Your task to perform on an android device: Open calendar and show me the first week of next month Image 0: 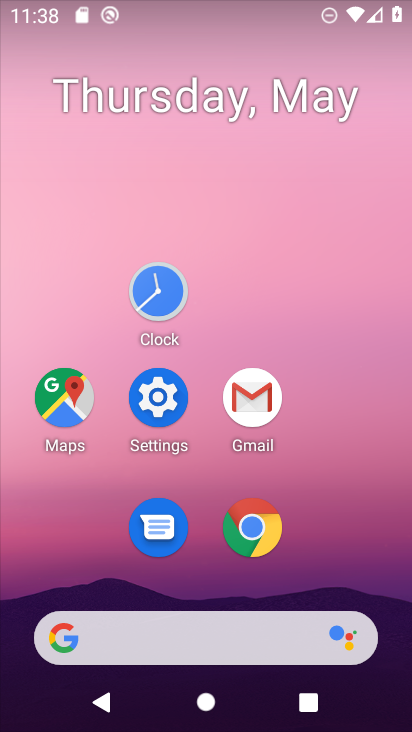
Step 0: drag from (364, 577) to (360, 220)
Your task to perform on an android device: Open calendar and show me the first week of next month Image 1: 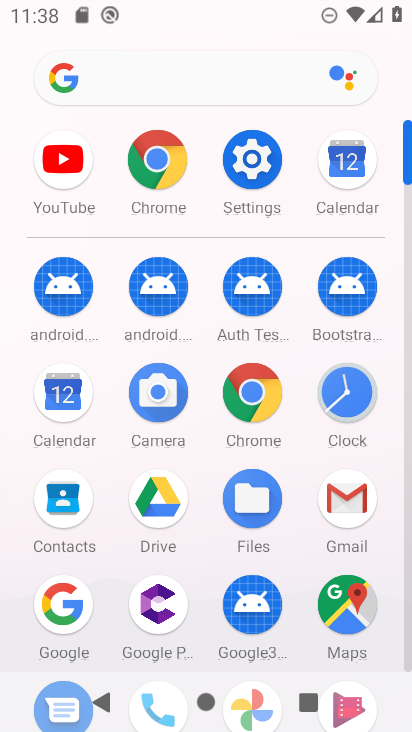
Step 1: click (279, 194)
Your task to perform on an android device: Open calendar and show me the first week of next month Image 2: 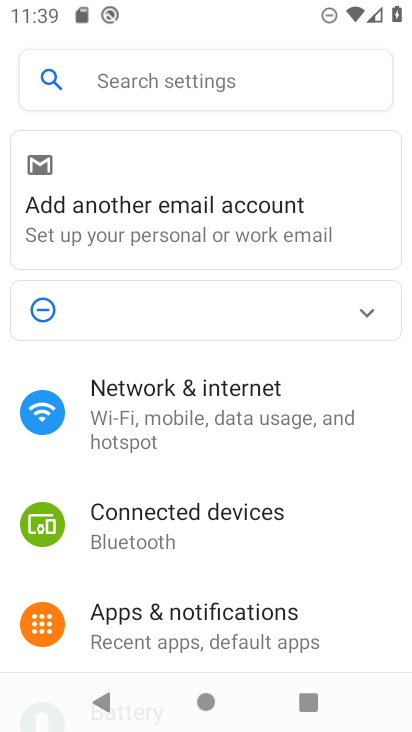
Step 2: press home button
Your task to perform on an android device: Open calendar and show me the first week of next month Image 3: 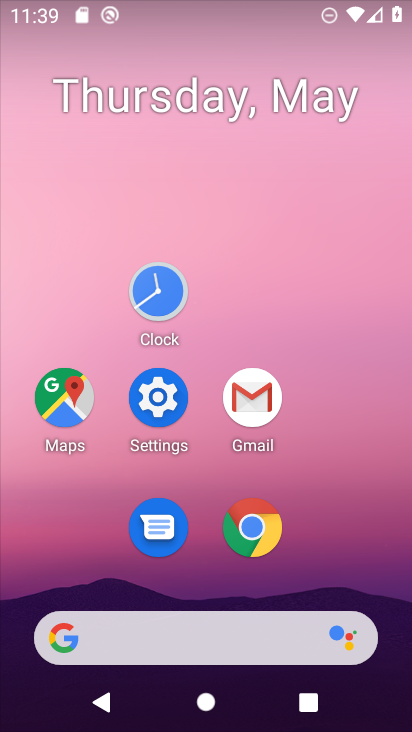
Step 3: drag from (332, 533) to (358, 175)
Your task to perform on an android device: Open calendar and show me the first week of next month Image 4: 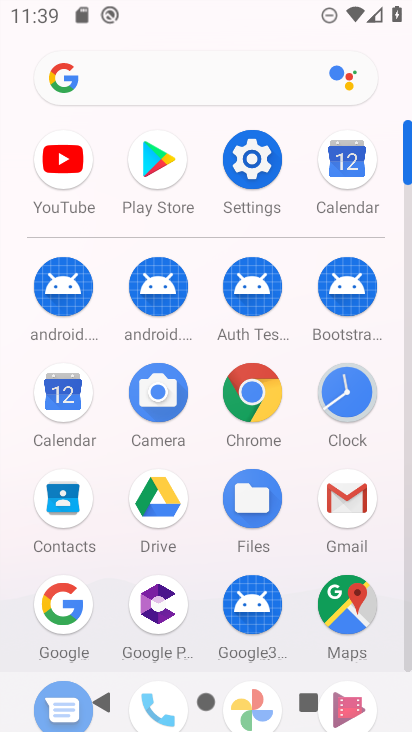
Step 4: click (66, 496)
Your task to perform on an android device: Open calendar and show me the first week of next month Image 5: 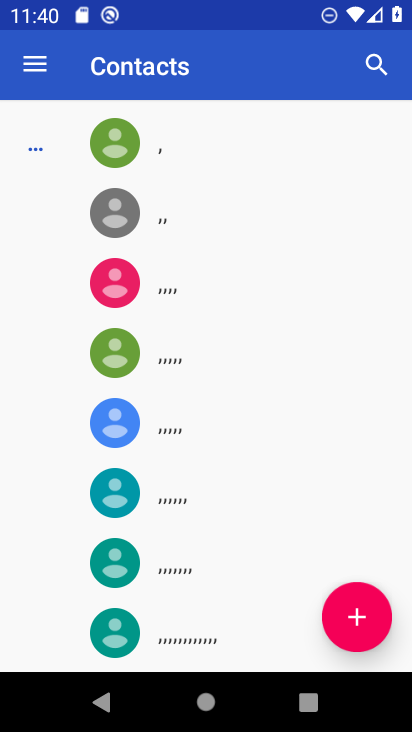
Step 5: press home button
Your task to perform on an android device: Open calendar and show me the first week of next month Image 6: 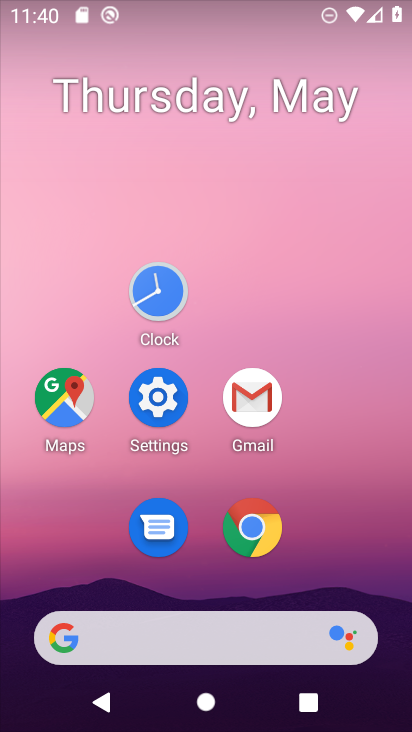
Step 6: drag from (332, 565) to (335, 200)
Your task to perform on an android device: Open calendar and show me the first week of next month Image 7: 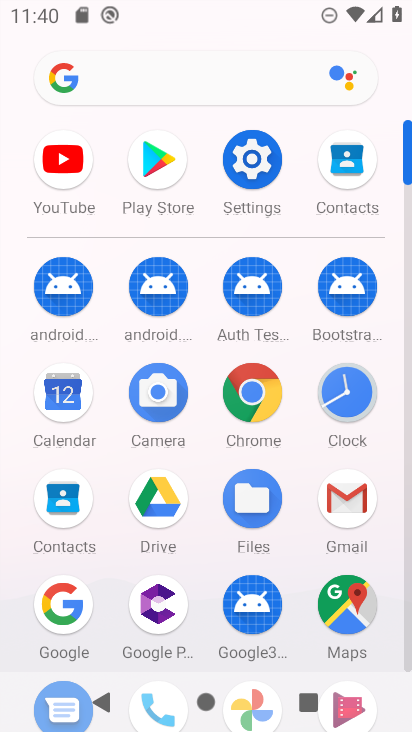
Step 7: drag from (314, 536) to (293, 249)
Your task to perform on an android device: Open calendar and show me the first week of next month Image 8: 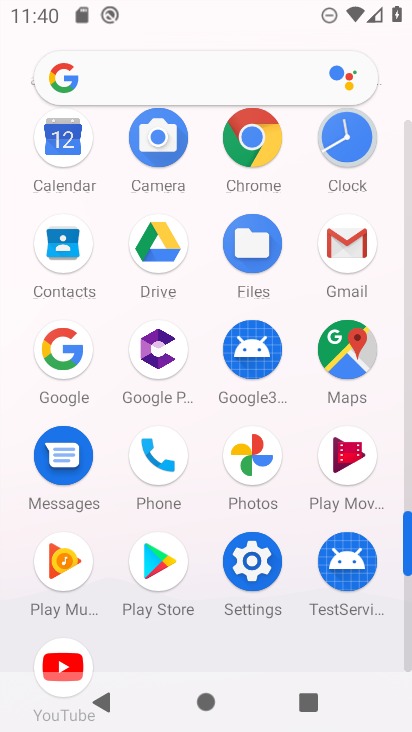
Step 8: drag from (53, 409) to (57, 279)
Your task to perform on an android device: Open calendar and show me the first week of next month Image 9: 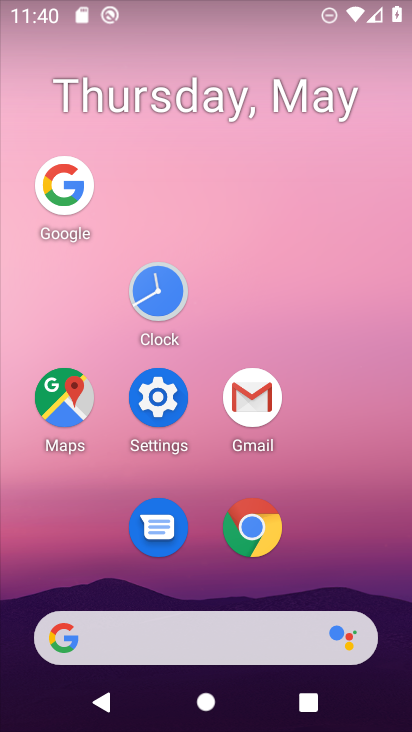
Step 9: drag from (316, 515) to (321, 241)
Your task to perform on an android device: Open calendar and show me the first week of next month Image 10: 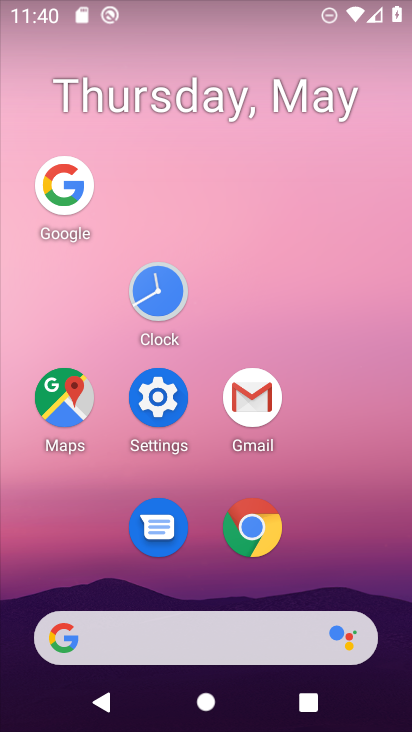
Step 10: drag from (361, 493) to (344, 129)
Your task to perform on an android device: Open calendar and show me the first week of next month Image 11: 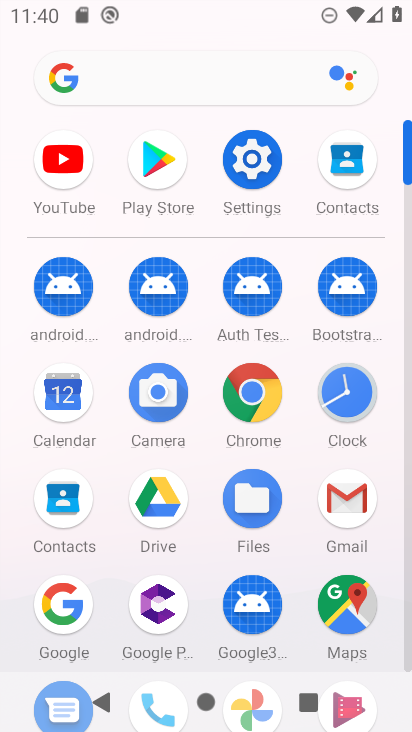
Step 11: click (81, 397)
Your task to perform on an android device: Open calendar and show me the first week of next month Image 12: 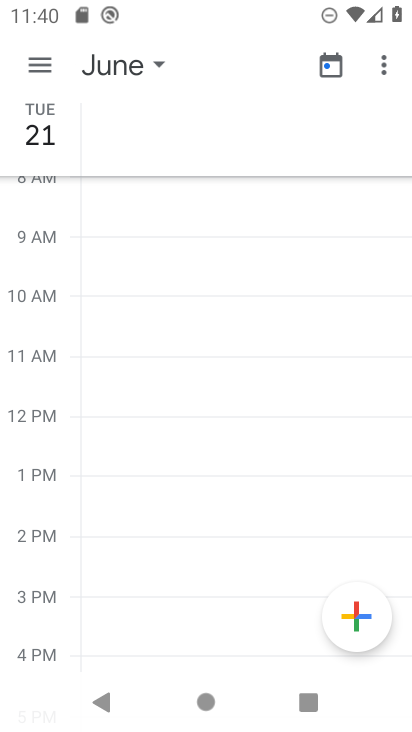
Step 12: drag from (366, 630) to (321, 523)
Your task to perform on an android device: Open calendar and show me the first week of next month Image 13: 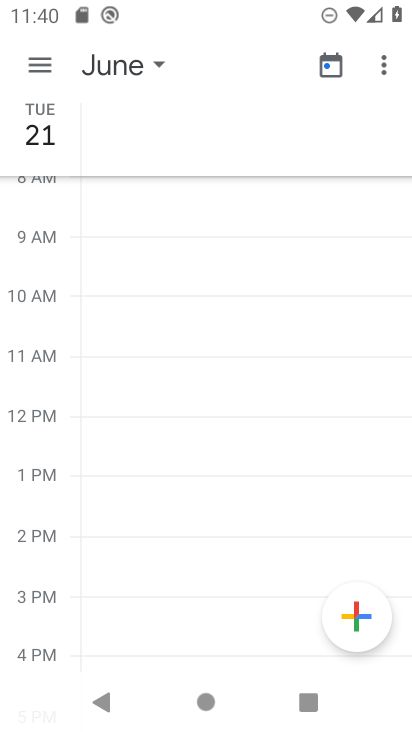
Step 13: click (145, 77)
Your task to perform on an android device: Open calendar and show me the first week of next month Image 14: 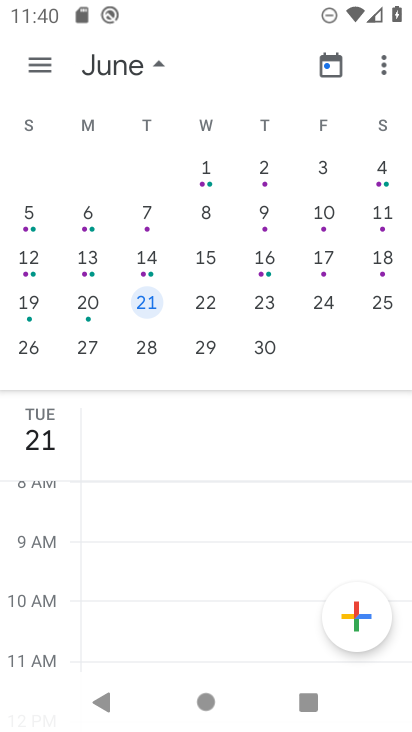
Step 14: click (202, 228)
Your task to perform on an android device: Open calendar and show me the first week of next month Image 15: 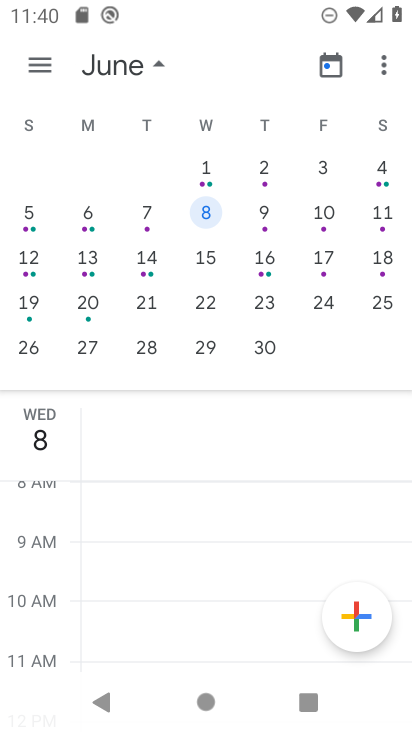
Step 15: task complete